Your task to perform on an android device: make emails show in primary in the gmail app Image 0: 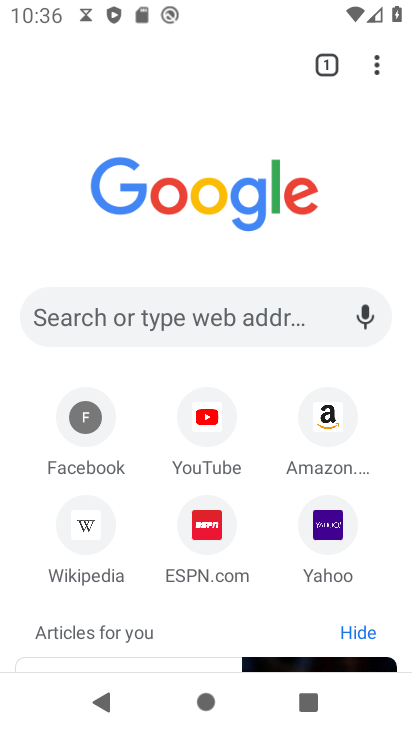
Step 0: press back button
Your task to perform on an android device: make emails show in primary in the gmail app Image 1: 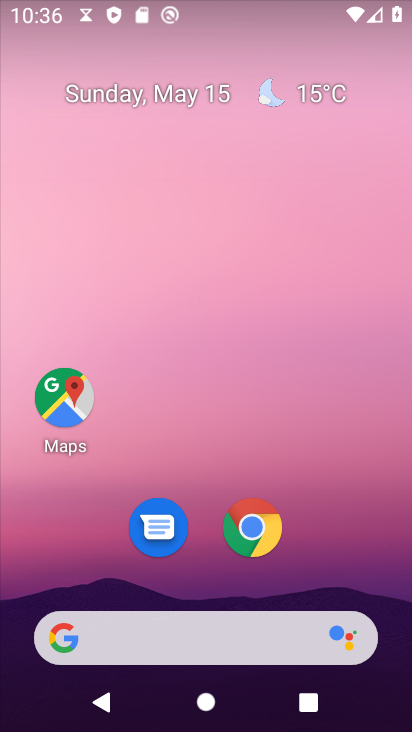
Step 1: drag from (312, 545) to (238, 101)
Your task to perform on an android device: make emails show in primary in the gmail app Image 2: 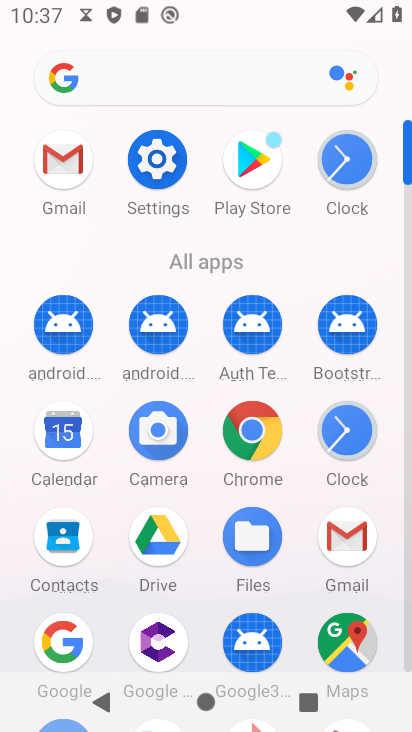
Step 2: click (63, 164)
Your task to perform on an android device: make emails show in primary in the gmail app Image 3: 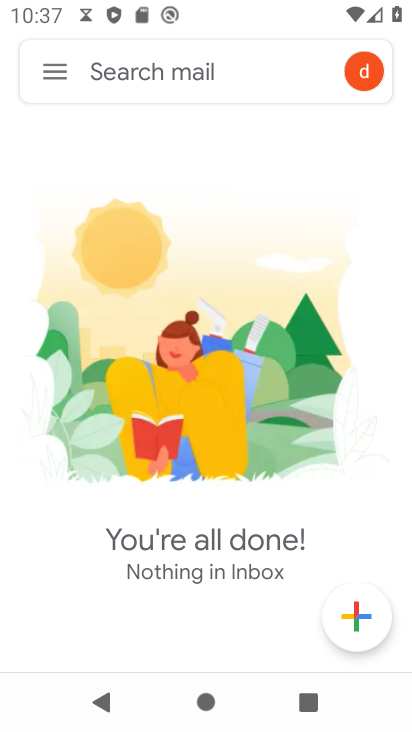
Step 3: click (52, 77)
Your task to perform on an android device: make emails show in primary in the gmail app Image 4: 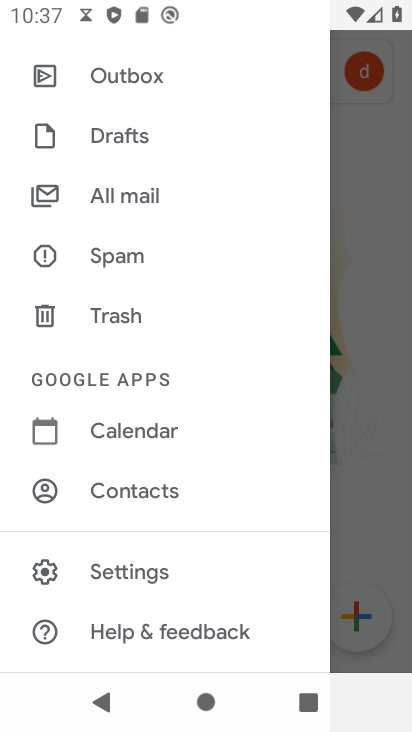
Step 4: click (143, 567)
Your task to perform on an android device: make emails show in primary in the gmail app Image 5: 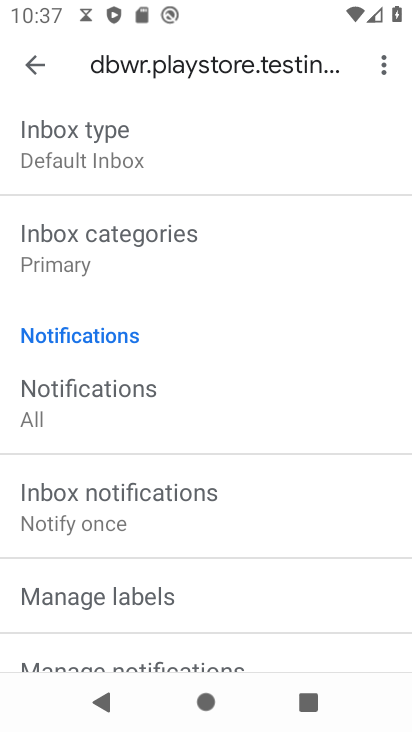
Step 5: task complete